Your task to perform on an android device: snooze an email in the gmail app Image 0: 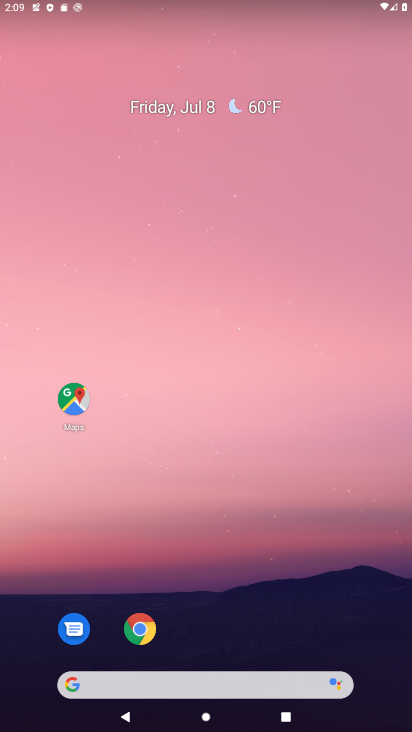
Step 0: drag from (203, 633) to (202, 267)
Your task to perform on an android device: snooze an email in the gmail app Image 1: 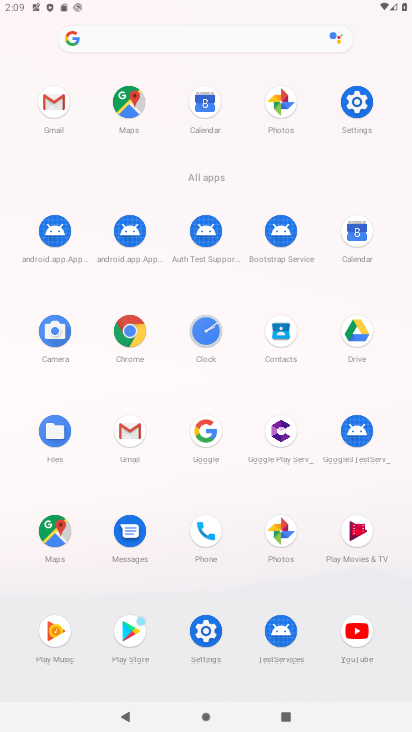
Step 1: click (44, 106)
Your task to perform on an android device: snooze an email in the gmail app Image 2: 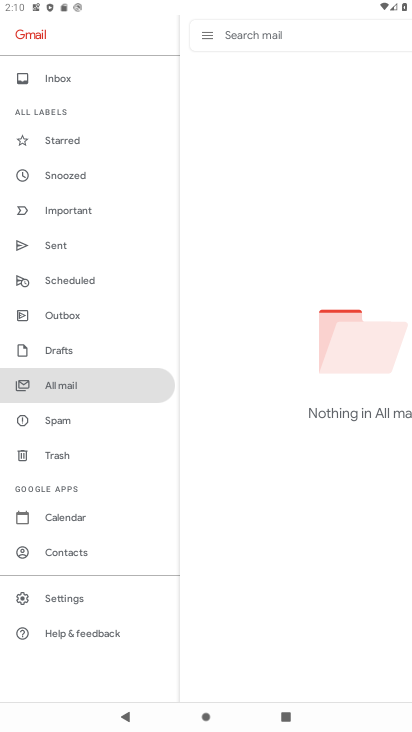
Step 2: click (91, 388)
Your task to perform on an android device: snooze an email in the gmail app Image 3: 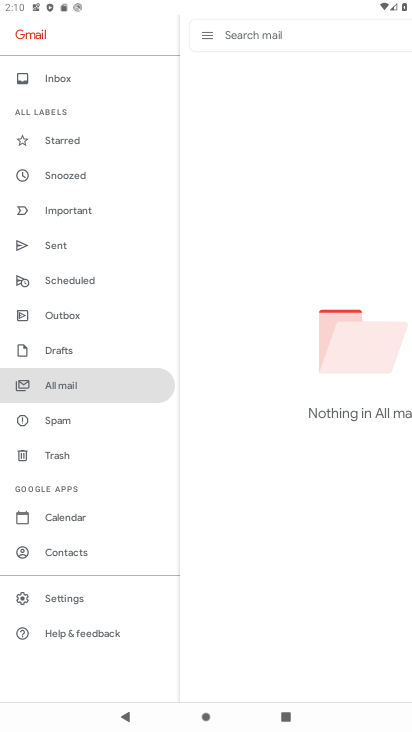
Step 3: task complete